Your task to perform on an android device: turn on wifi Image 0: 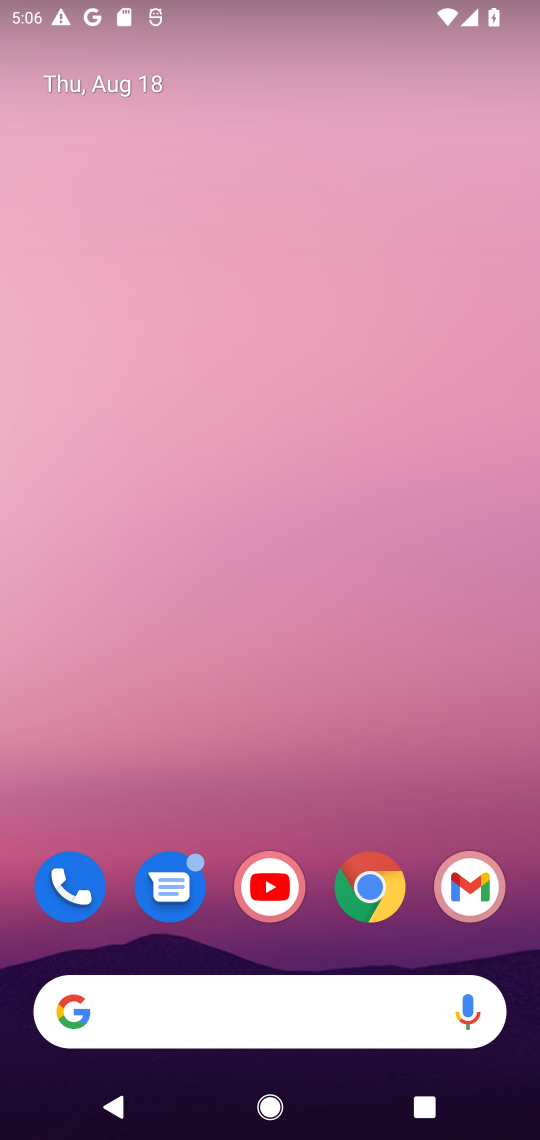
Step 0: drag from (425, 454) to (442, 274)
Your task to perform on an android device: turn on wifi Image 1: 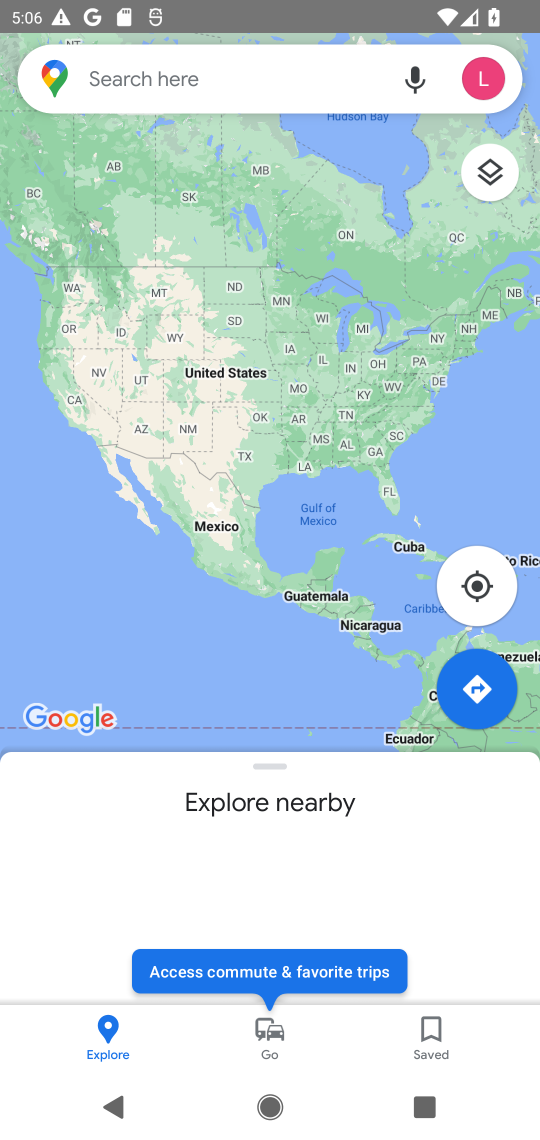
Step 1: task complete